Your task to perform on an android device: Add "usb-b" to the cart on costco.com, then select checkout. Image 0: 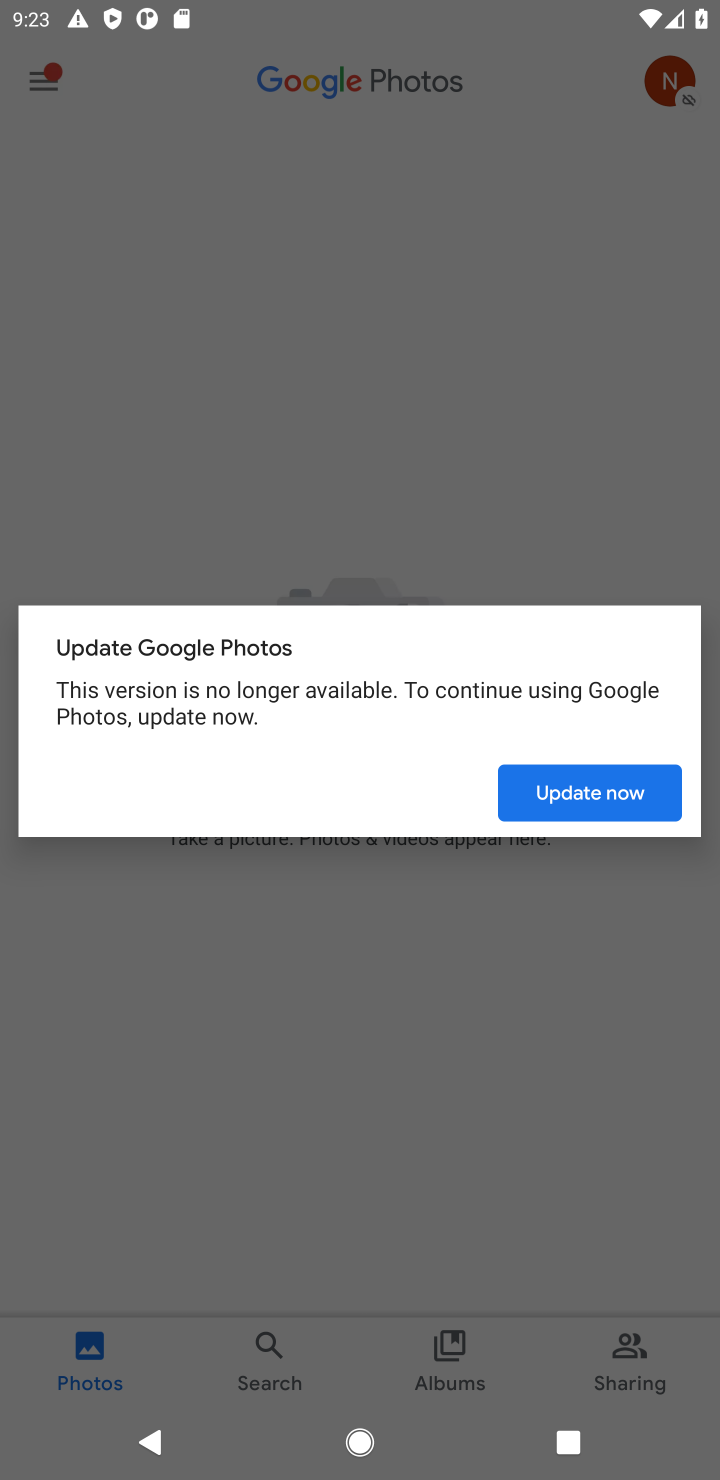
Step 0: press home button
Your task to perform on an android device: Add "usb-b" to the cart on costco.com, then select checkout. Image 1: 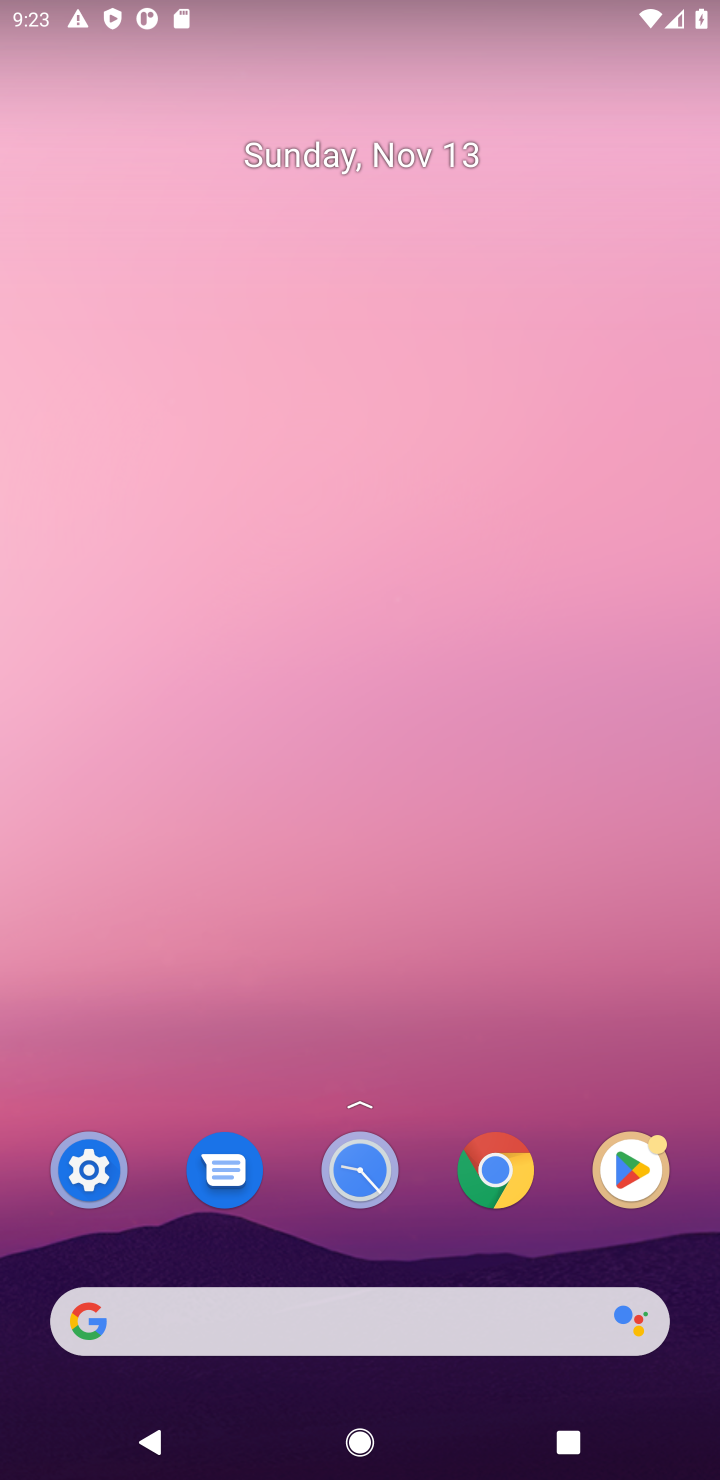
Step 1: click (432, 1327)
Your task to perform on an android device: Add "usb-b" to the cart on costco.com, then select checkout. Image 2: 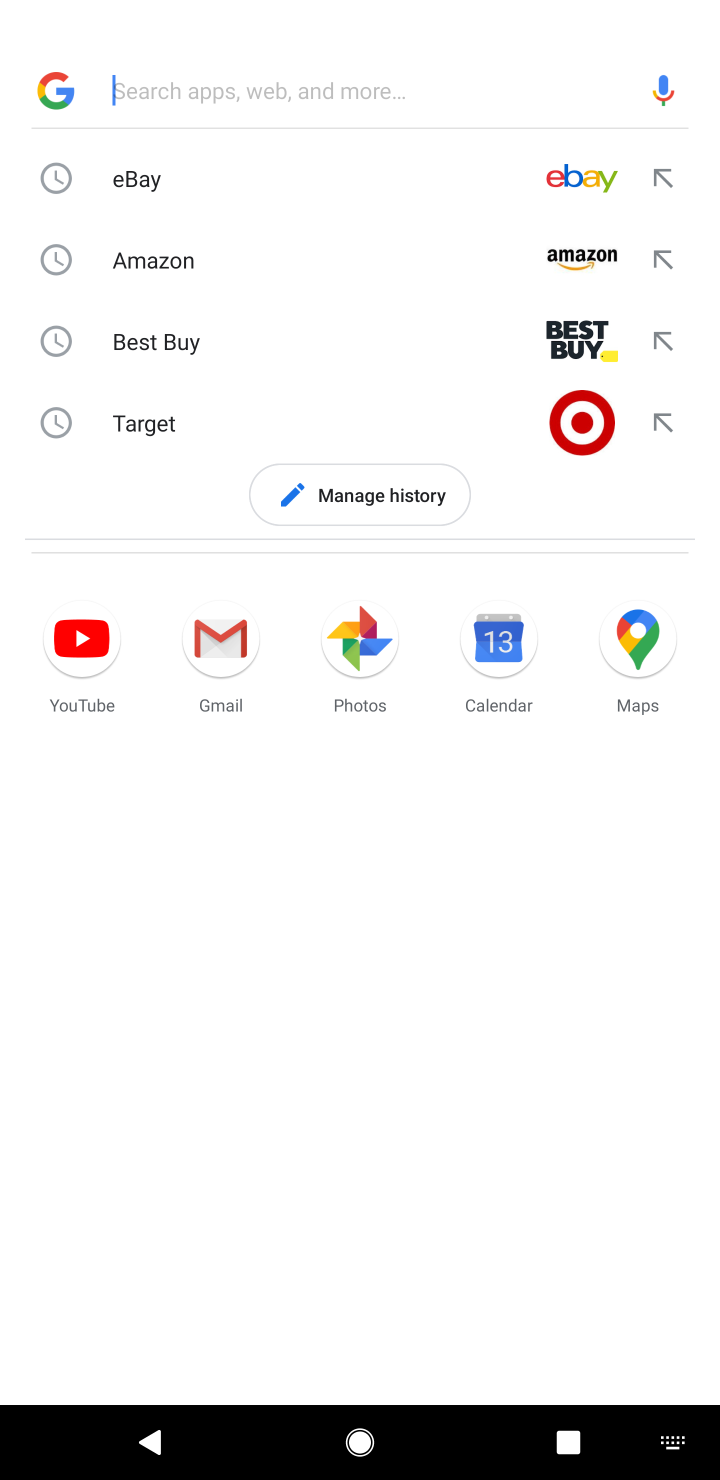
Step 2: type "costco.com"
Your task to perform on an android device: Add "usb-b" to the cart on costco.com, then select checkout. Image 3: 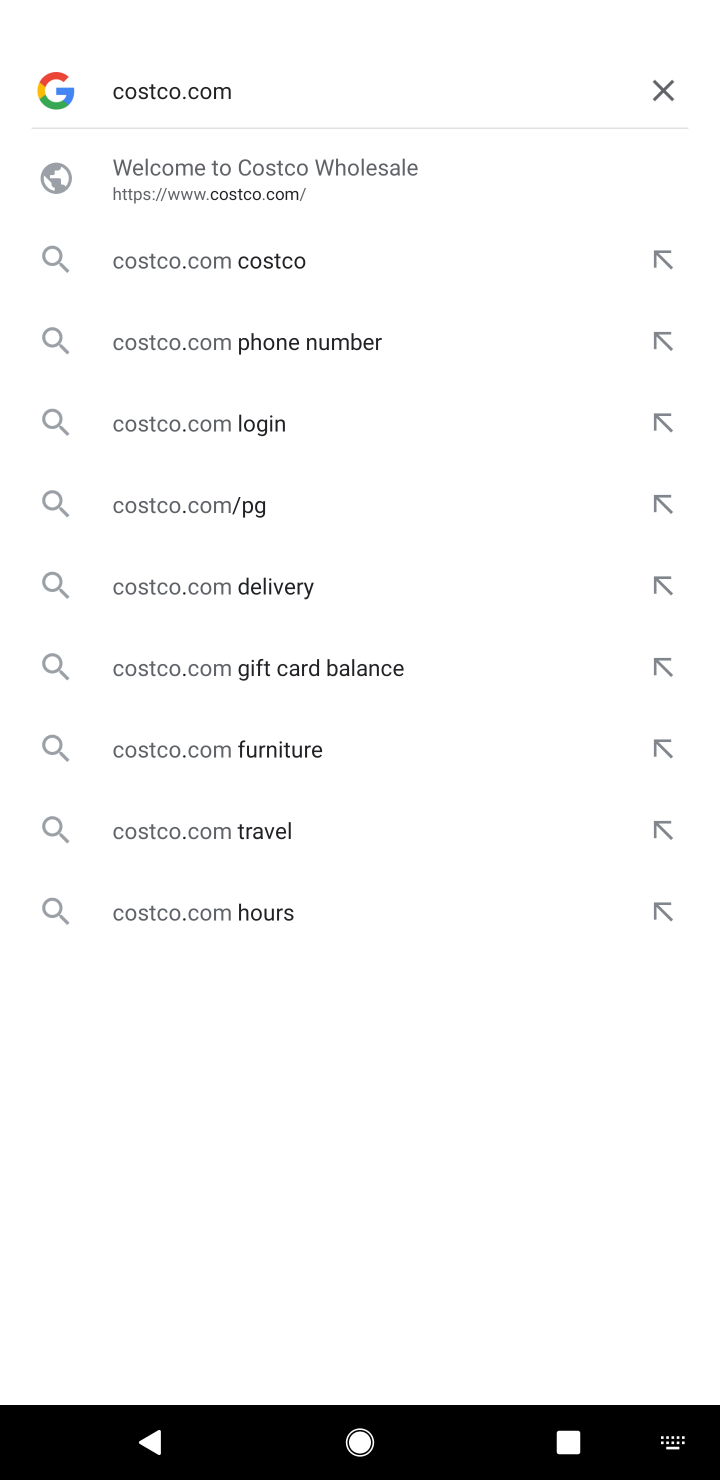
Step 3: click (225, 171)
Your task to perform on an android device: Add "usb-b" to the cart on costco.com, then select checkout. Image 4: 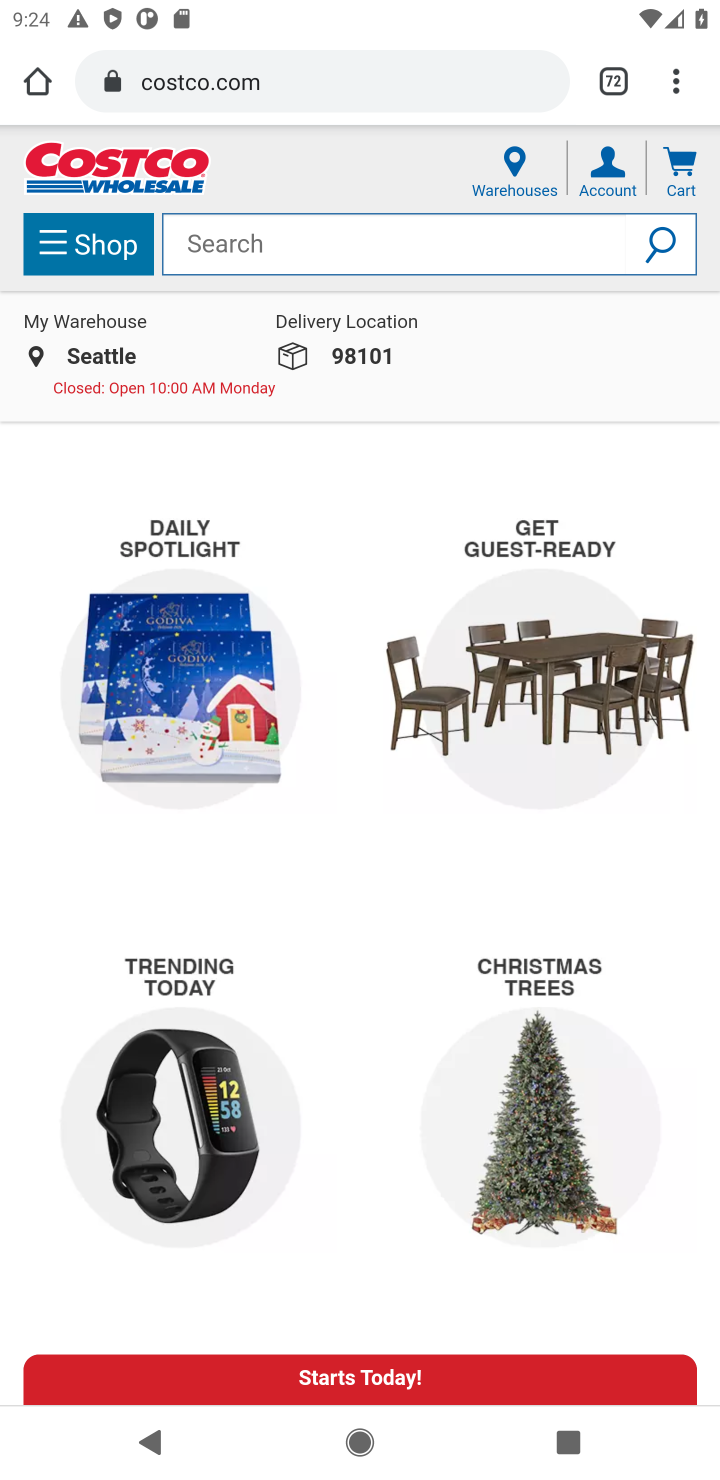
Step 4: click (405, 263)
Your task to perform on an android device: Add "usb-b" to the cart on costco.com, then select checkout. Image 5: 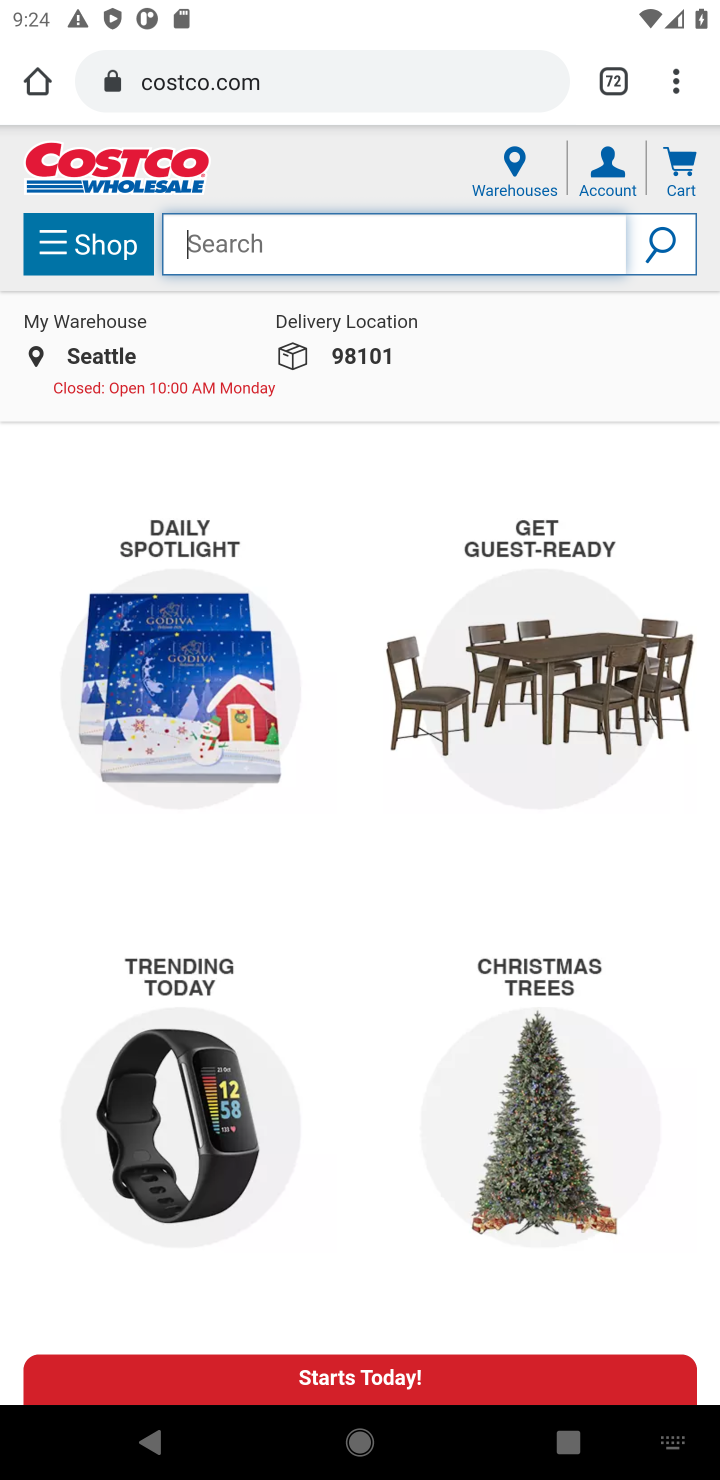
Step 5: type "usb-d"
Your task to perform on an android device: Add "usb-b" to the cart on costco.com, then select checkout. Image 6: 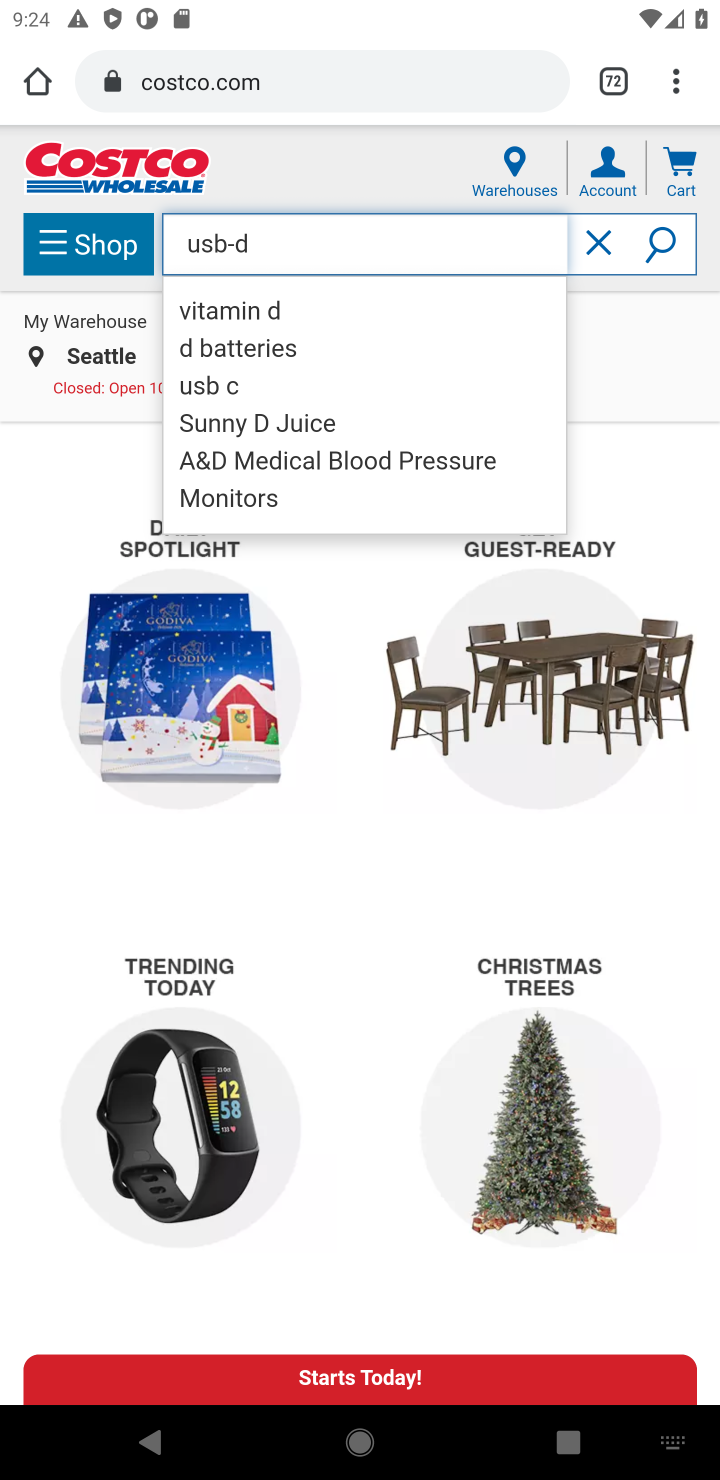
Step 6: click (648, 273)
Your task to perform on an android device: Add "usb-b" to the cart on costco.com, then select checkout. Image 7: 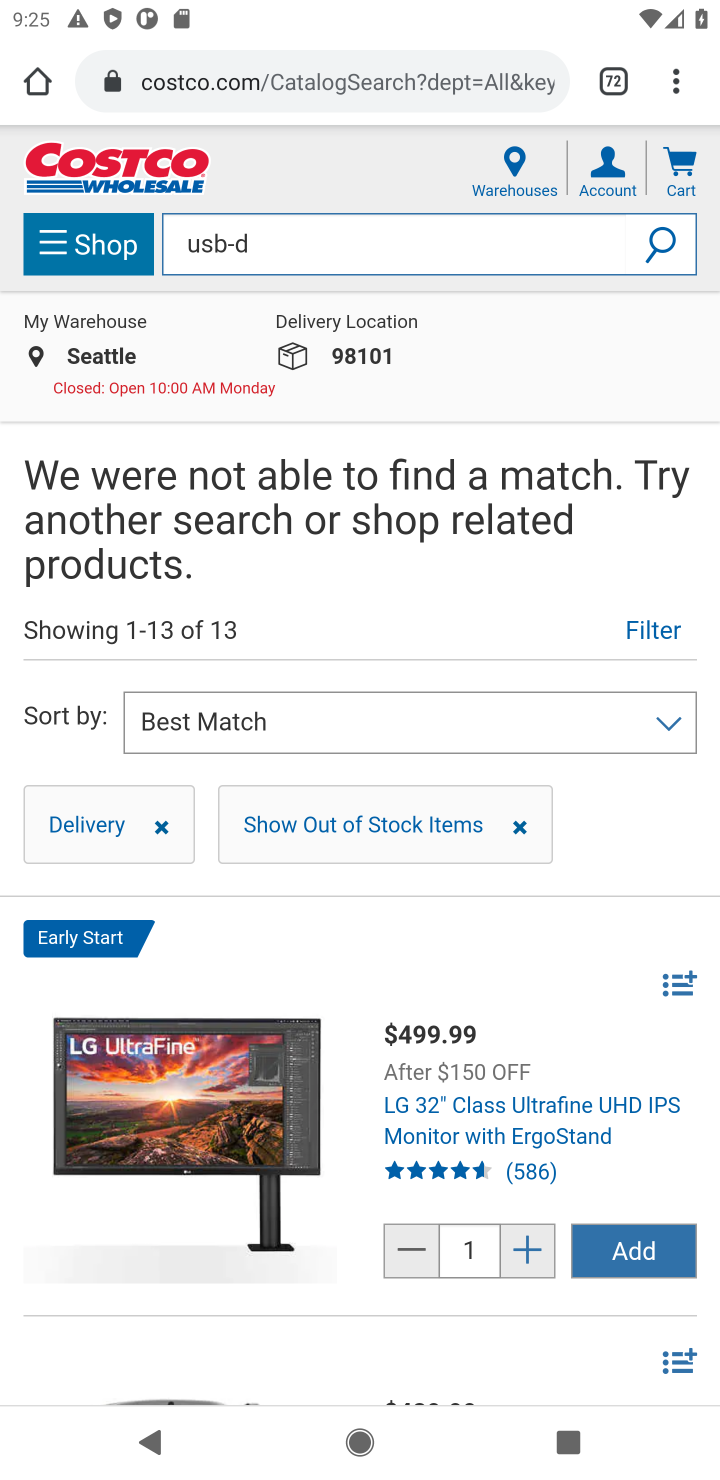
Step 7: task complete